Your task to perform on an android device: change alarm snooze length Image 0: 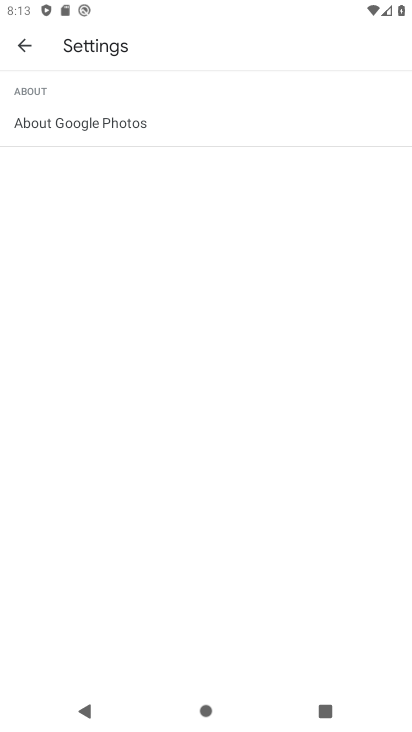
Step 0: press home button
Your task to perform on an android device: change alarm snooze length Image 1: 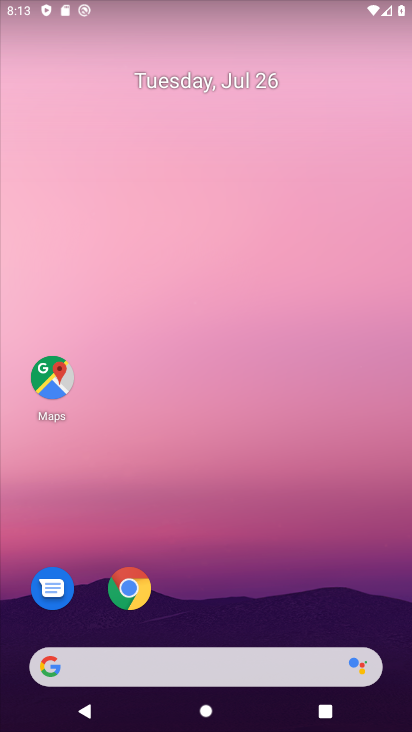
Step 1: drag from (226, 647) to (182, 6)
Your task to perform on an android device: change alarm snooze length Image 2: 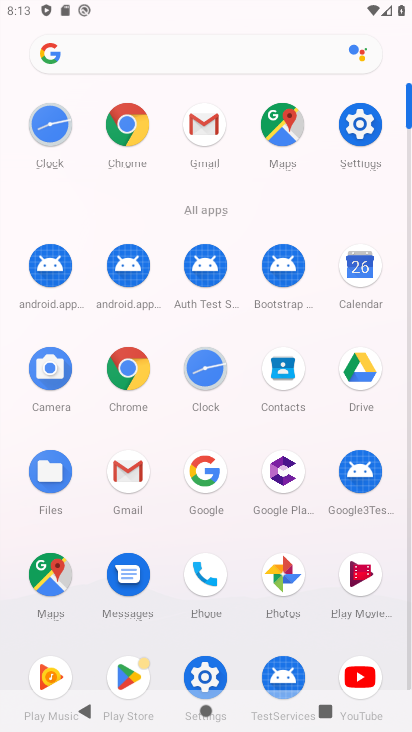
Step 2: click (205, 380)
Your task to perform on an android device: change alarm snooze length Image 3: 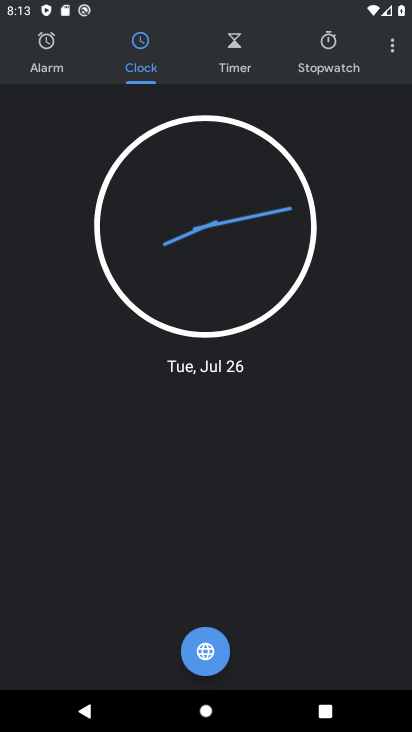
Step 3: click (395, 51)
Your task to perform on an android device: change alarm snooze length Image 4: 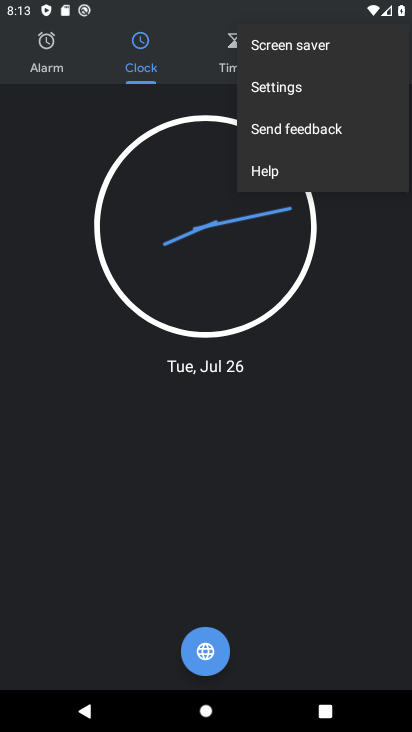
Step 4: click (277, 90)
Your task to perform on an android device: change alarm snooze length Image 5: 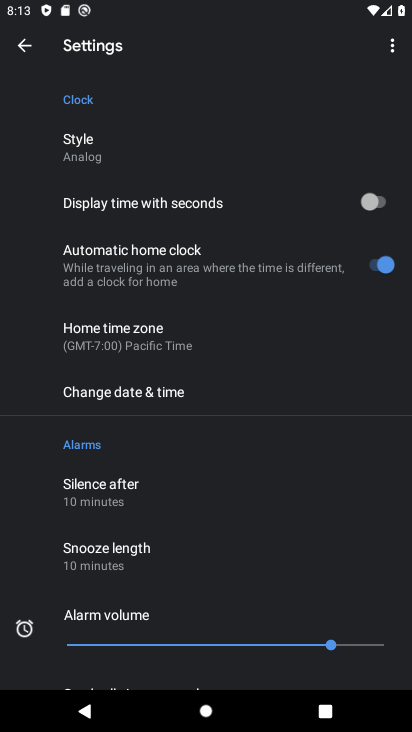
Step 5: click (103, 562)
Your task to perform on an android device: change alarm snooze length Image 6: 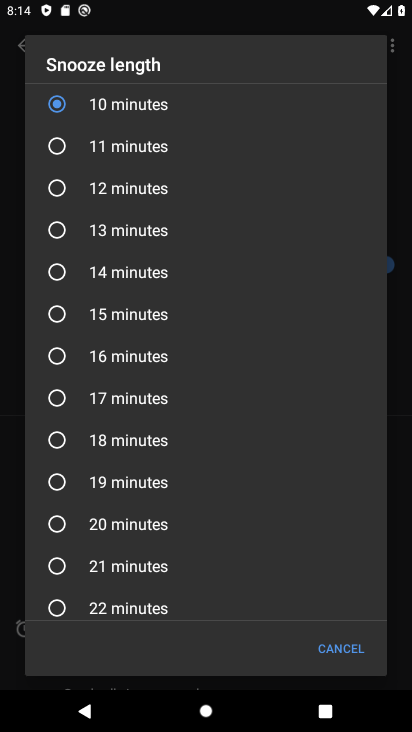
Step 6: click (56, 194)
Your task to perform on an android device: change alarm snooze length Image 7: 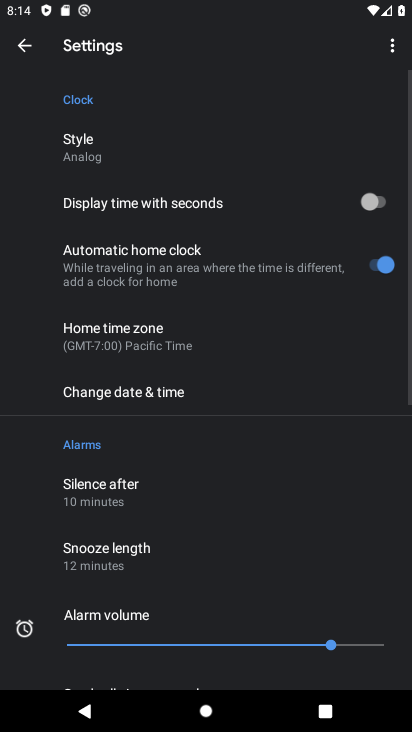
Step 7: task complete